Your task to perform on an android device: Turn off the flashlight Image 0: 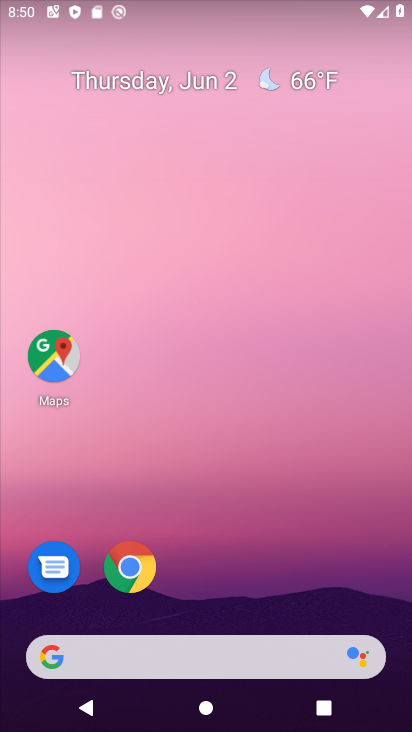
Step 0: drag from (210, 592) to (245, 235)
Your task to perform on an android device: Turn off the flashlight Image 1: 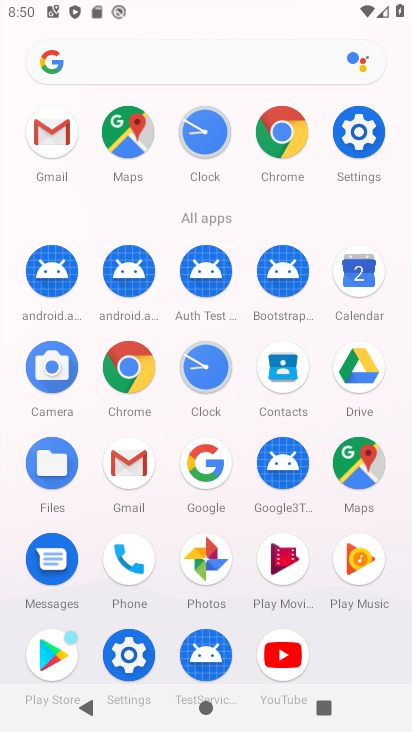
Step 1: click (135, 657)
Your task to perform on an android device: Turn off the flashlight Image 2: 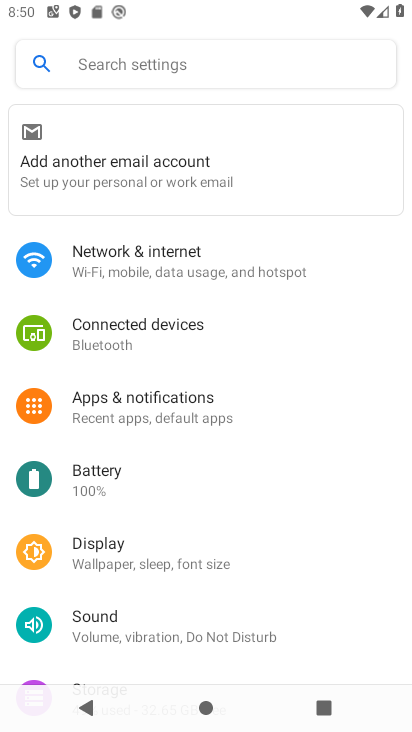
Step 2: click (250, 64)
Your task to perform on an android device: Turn off the flashlight Image 3: 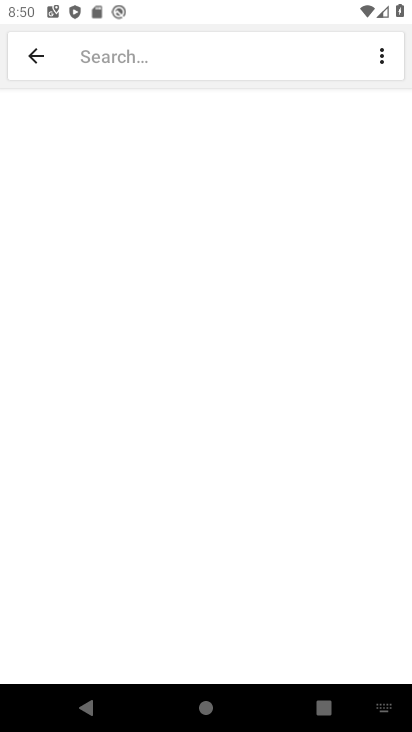
Step 3: type "flashlight"
Your task to perform on an android device: Turn off the flashlight Image 4: 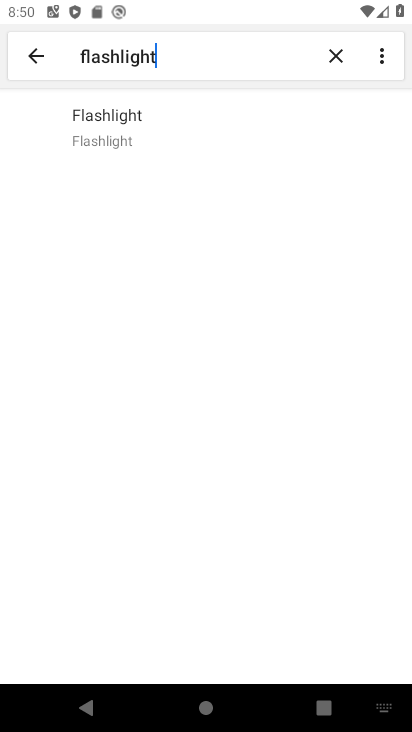
Step 4: click (187, 128)
Your task to perform on an android device: Turn off the flashlight Image 5: 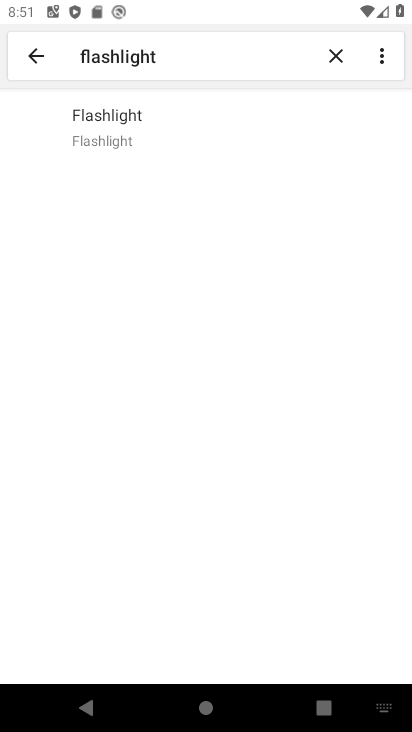
Step 5: click (187, 128)
Your task to perform on an android device: Turn off the flashlight Image 6: 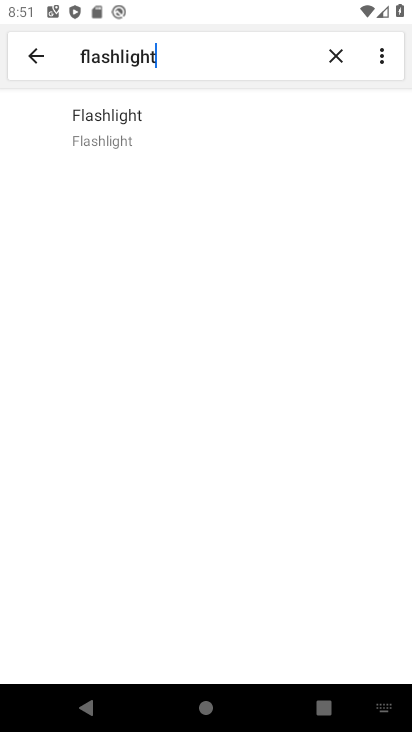
Step 6: task complete